Your task to perform on an android device: When is my next appointment? Image 0: 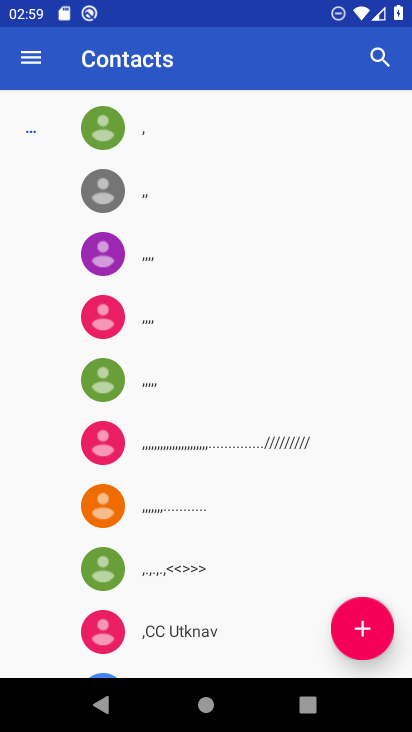
Step 0: press home button
Your task to perform on an android device: When is my next appointment? Image 1: 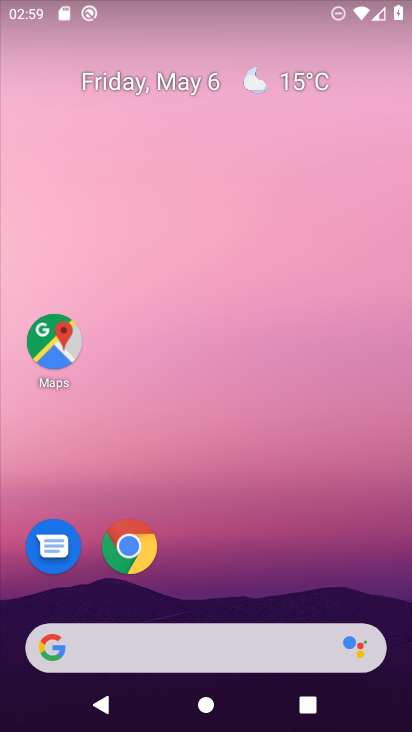
Step 1: click (178, 82)
Your task to perform on an android device: When is my next appointment? Image 2: 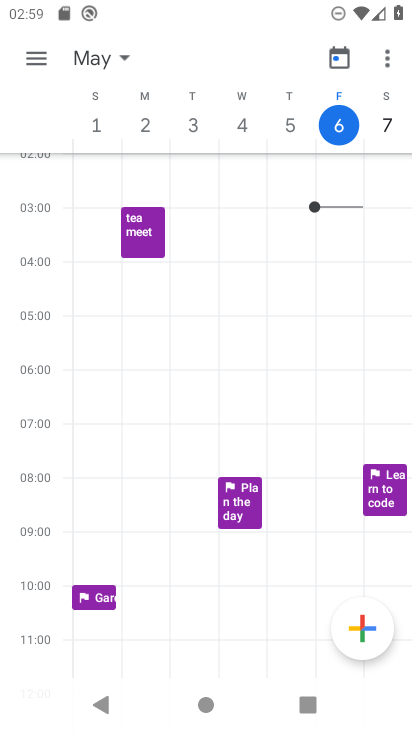
Step 2: click (120, 56)
Your task to perform on an android device: When is my next appointment? Image 3: 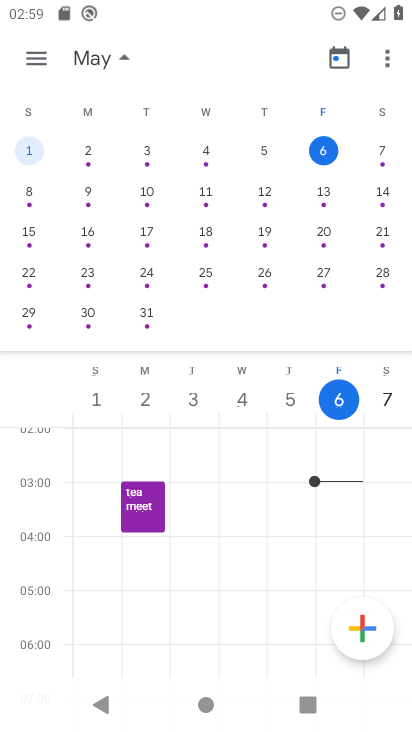
Step 3: click (324, 146)
Your task to perform on an android device: When is my next appointment? Image 4: 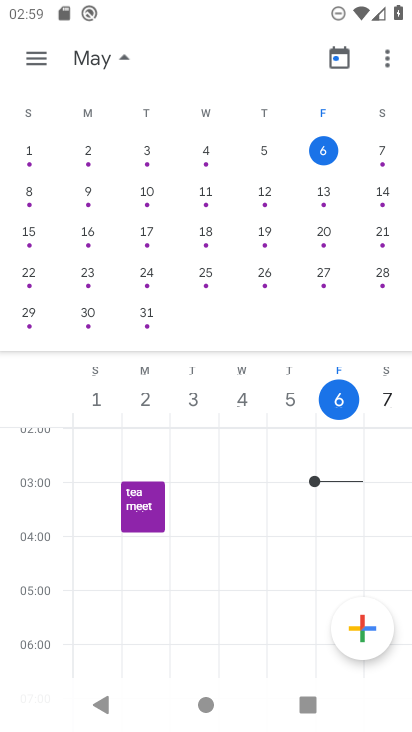
Step 4: click (327, 150)
Your task to perform on an android device: When is my next appointment? Image 5: 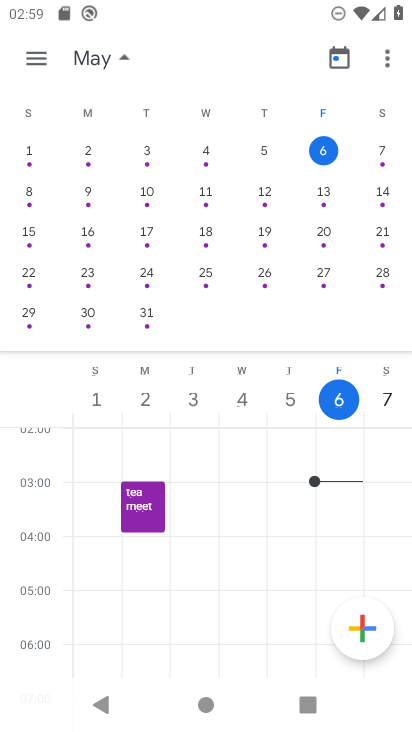
Step 5: click (39, 49)
Your task to perform on an android device: When is my next appointment? Image 6: 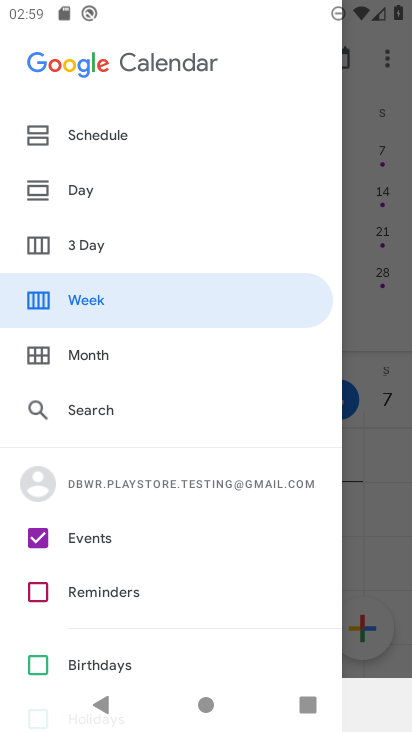
Step 6: click (108, 138)
Your task to perform on an android device: When is my next appointment? Image 7: 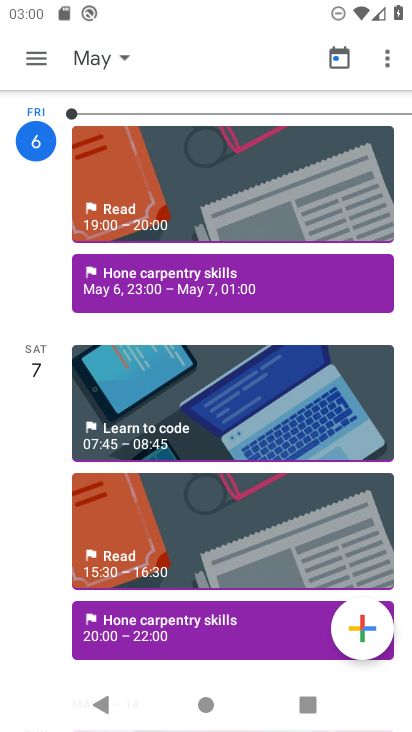
Step 7: task complete